Your task to perform on an android device: Go to Maps Image 0: 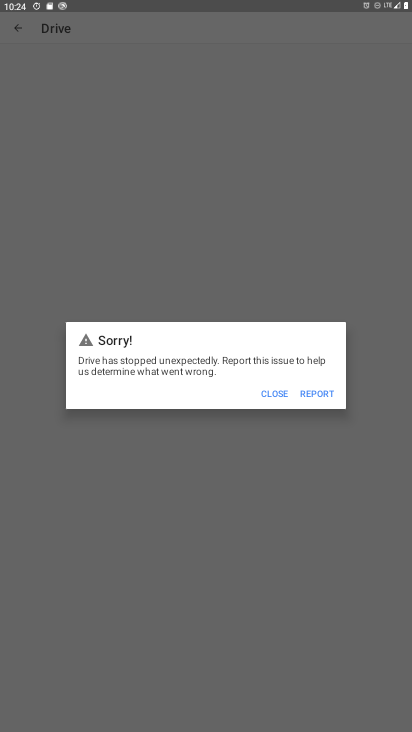
Step 0: press home button
Your task to perform on an android device: Go to Maps Image 1: 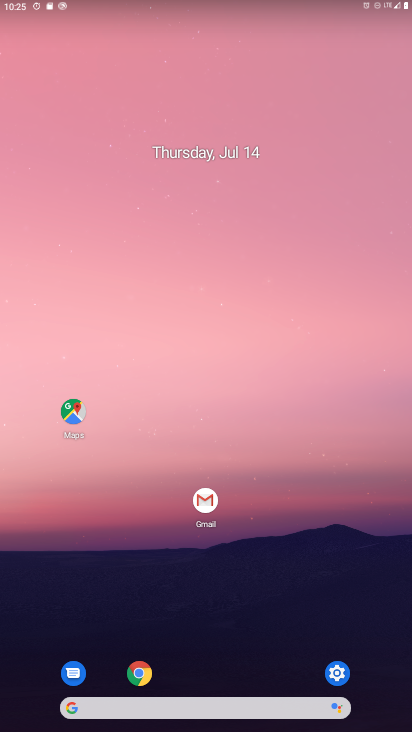
Step 1: click (64, 400)
Your task to perform on an android device: Go to Maps Image 2: 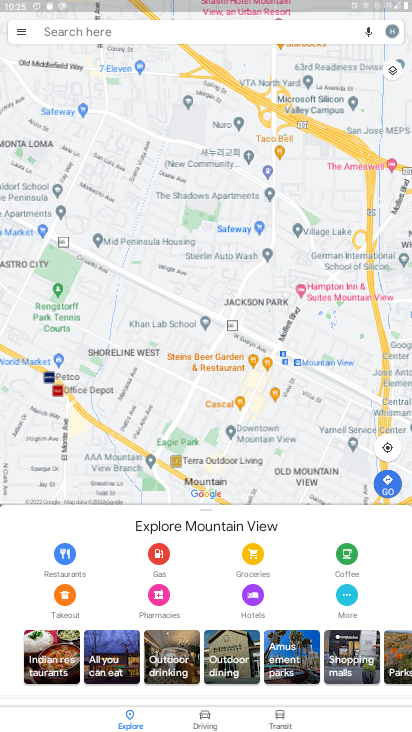
Step 2: task complete